Your task to perform on an android device: Search for "jbl flip 4" on bestbuy, select the first entry, and add it to the cart. Image 0: 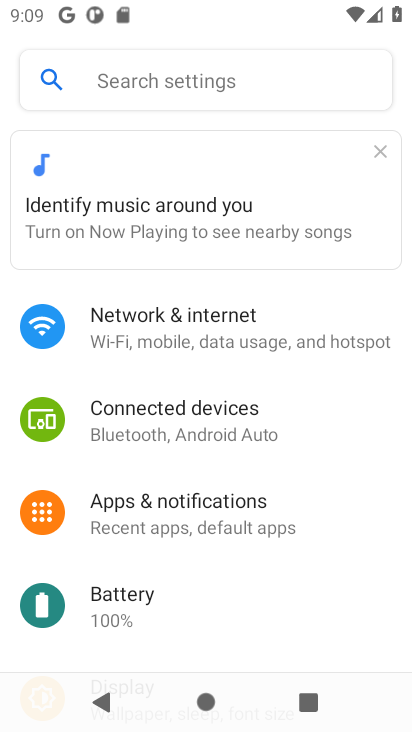
Step 0: press home button
Your task to perform on an android device: Search for "jbl flip 4" on bestbuy, select the first entry, and add it to the cart. Image 1: 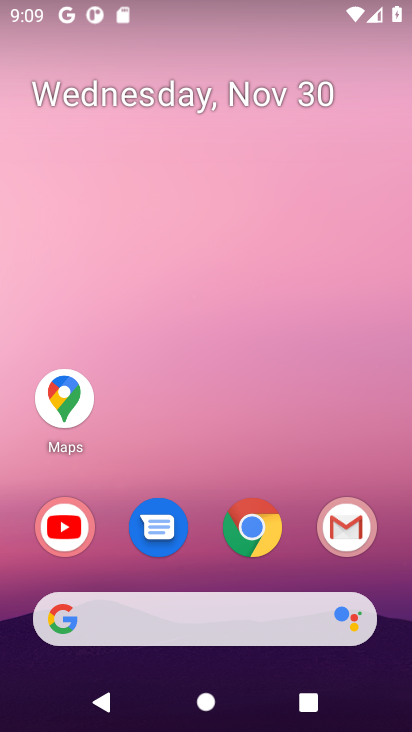
Step 1: click (248, 526)
Your task to perform on an android device: Search for "jbl flip 4" on bestbuy, select the first entry, and add it to the cart. Image 2: 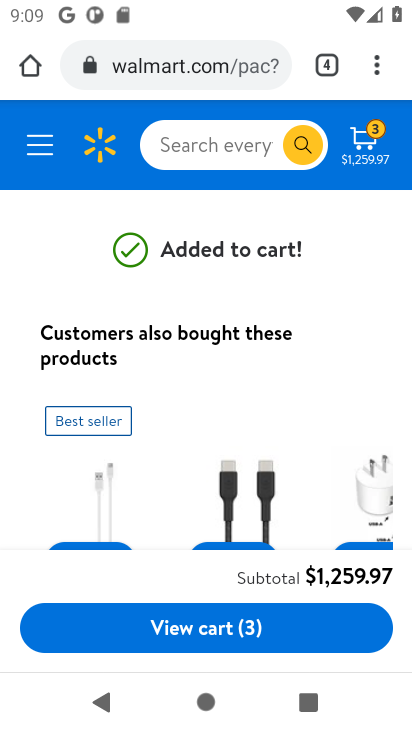
Step 2: click (215, 62)
Your task to perform on an android device: Search for "jbl flip 4" on bestbuy, select the first entry, and add it to the cart. Image 3: 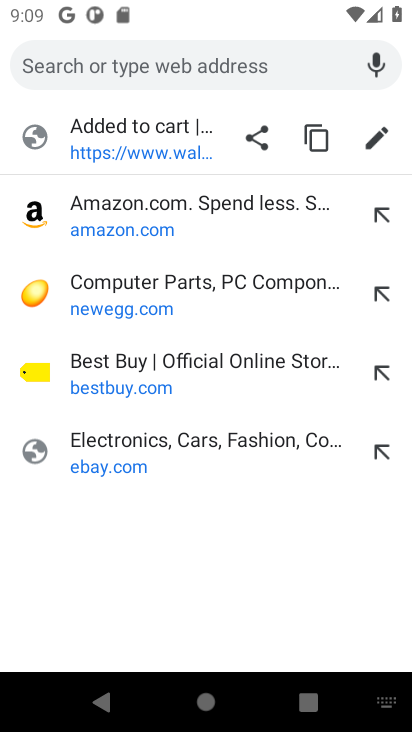
Step 3: click (119, 363)
Your task to perform on an android device: Search for "jbl flip 4" on bestbuy, select the first entry, and add it to the cart. Image 4: 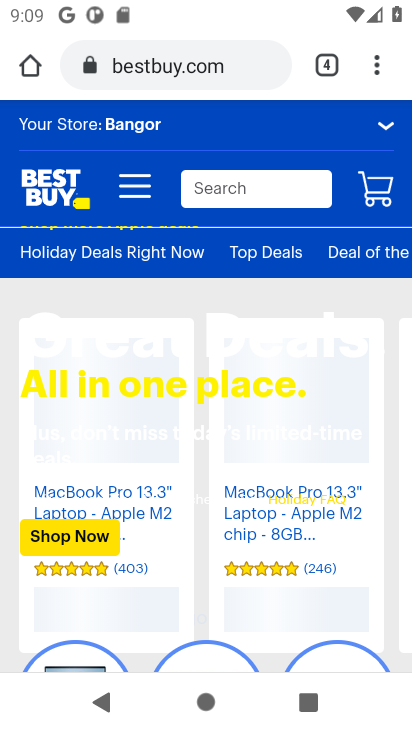
Step 4: click (253, 191)
Your task to perform on an android device: Search for "jbl flip 4" on bestbuy, select the first entry, and add it to the cart. Image 5: 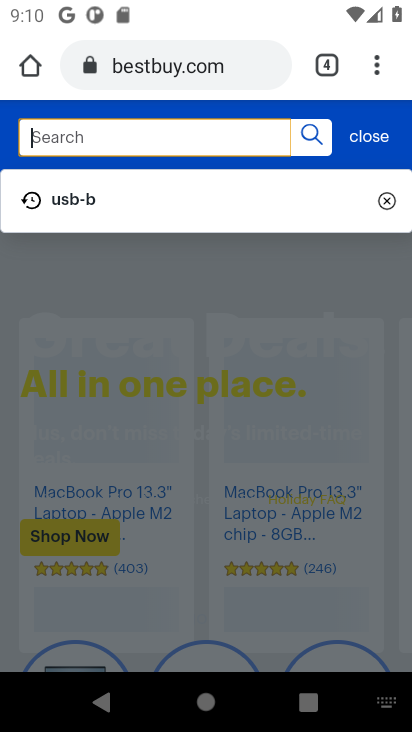
Step 5: type "jbl flip 4"
Your task to perform on an android device: Search for "jbl flip 4" on bestbuy, select the first entry, and add it to the cart. Image 6: 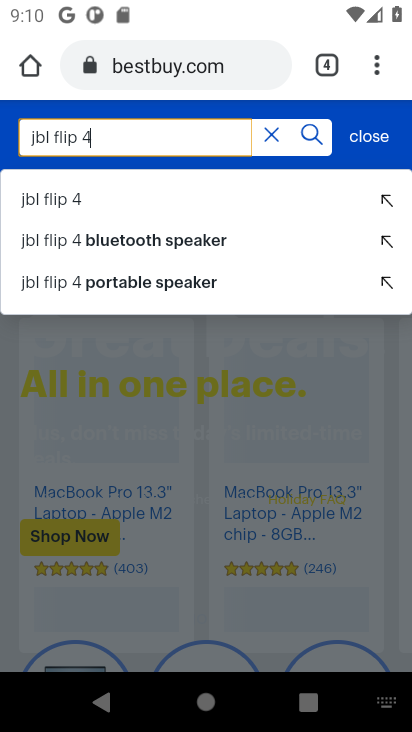
Step 6: click (64, 201)
Your task to perform on an android device: Search for "jbl flip 4" on bestbuy, select the first entry, and add it to the cart. Image 7: 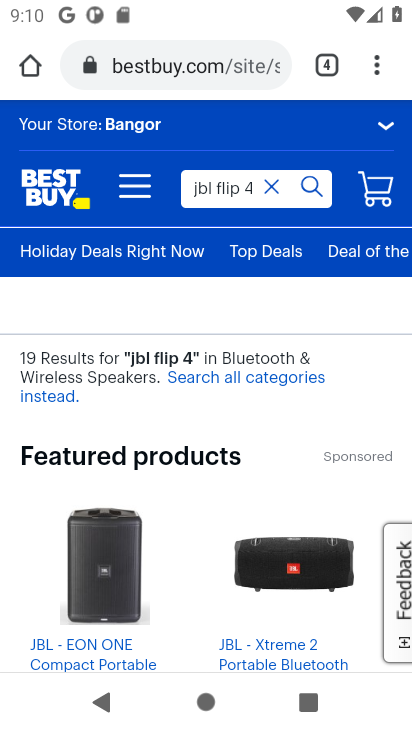
Step 7: drag from (267, 493) to (252, 100)
Your task to perform on an android device: Search for "jbl flip 4" on bestbuy, select the first entry, and add it to the cart. Image 8: 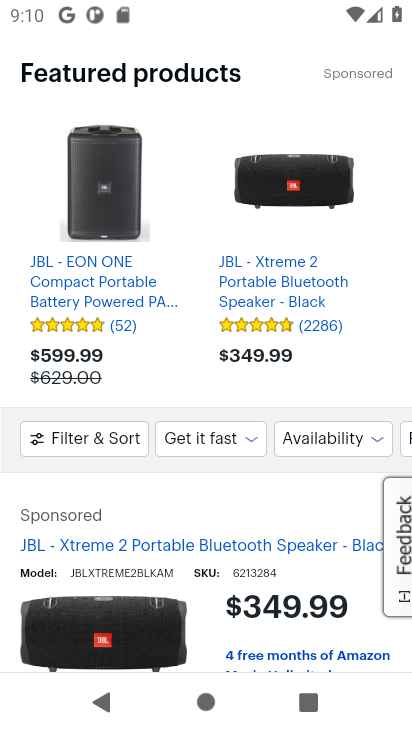
Step 8: drag from (259, 511) to (298, 206)
Your task to perform on an android device: Search for "jbl flip 4" on bestbuy, select the first entry, and add it to the cart. Image 9: 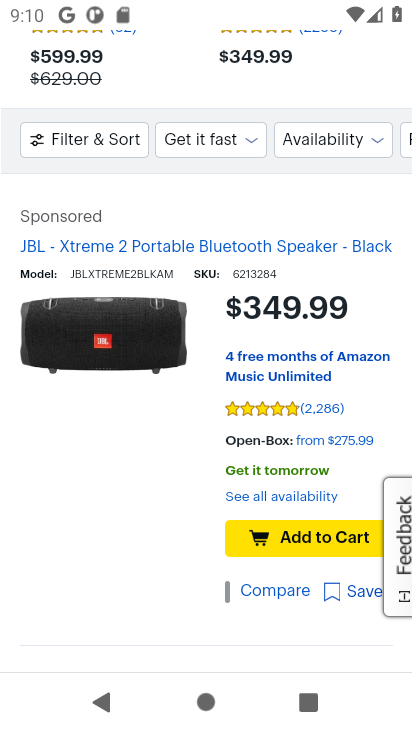
Step 9: drag from (278, 626) to (287, 107)
Your task to perform on an android device: Search for "jbl flip 4" on bestbuy, select the first entry, and add it to the cart. Image 10: 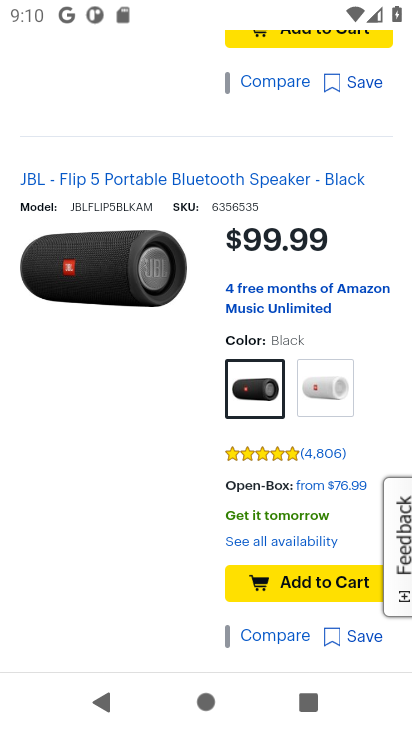
Step 10: drag from (162, 556) to (194, 87)
Your task to perform on an android device: Search for "jbl flip 4" on bestbuy, select the first entry, and add it to the cart. Image 11: 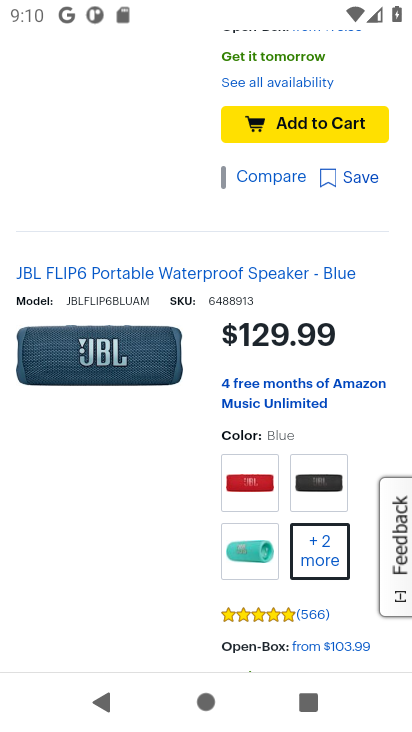
Step 11: drag from (150, 585) to (253, 70)
Your task to perform on an android device: Search for "jbl flip 4" on bestbuy, select the first entry, and add it to the cart. Image 12: 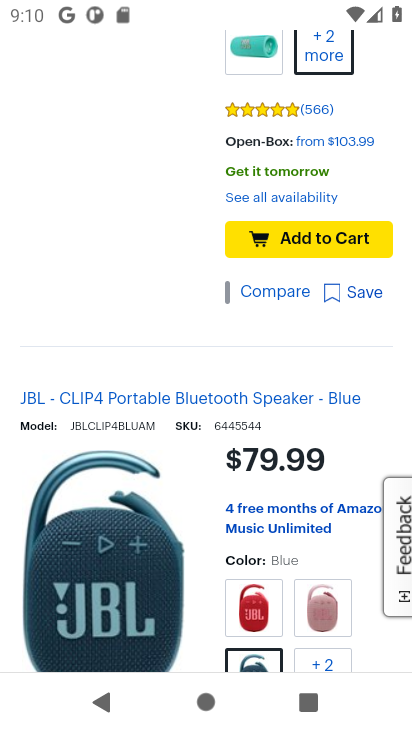
Step 12: click (124, 555)
Your task to perform on an android device: Search for "jbl flip 4" on bestbuy, select the first entry, and add it to the cart. Image 13: 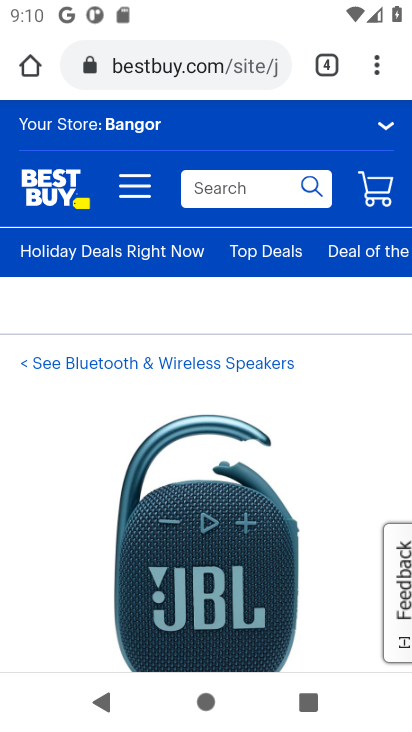
Step 13: drag from (329, 487) to (277, 8)
Your task to perform on an android device: Search for "jbl flip 4" on bestbuy, select the first entry, and add it to the cart. Image 14: 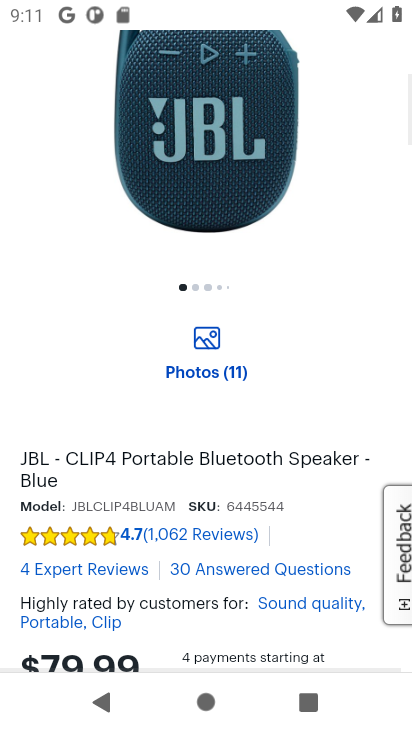
Step 14: drag from (339, 612) to (378, 3)
Your task to perform on an android device: Search for "jbl flip 4" on bestbuy, select the first entry, and add it to the cart. Image 15: 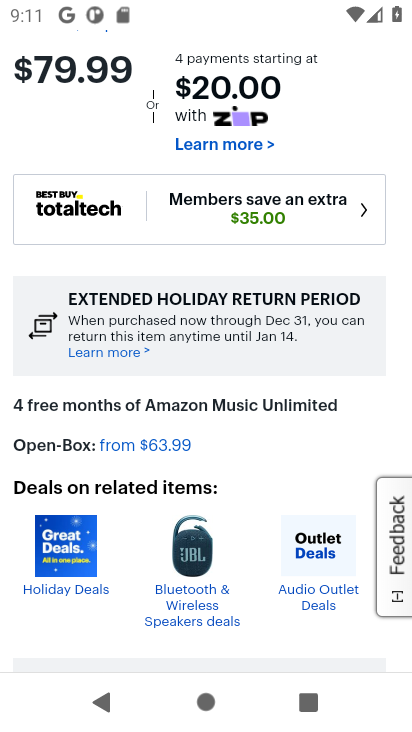
Step 15: drag from (288, 499) to (306, 78)
Your task to perform on an android device: Search for "jbl flip 4" on bestbuy, select the first entry, and add it to the cart. Image 16: 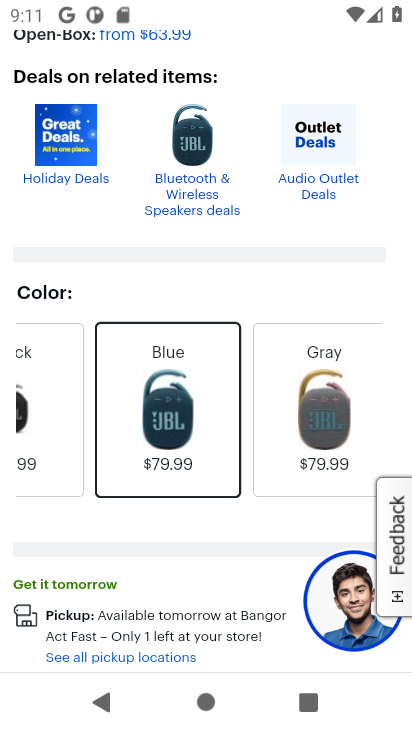
Step 16: drag from (224, 579) to (291, 123)
Your task to perform on an android device: Search for "jbl flip 4" on bestbuy, select the first entry, and add it to the cart. Image 17: 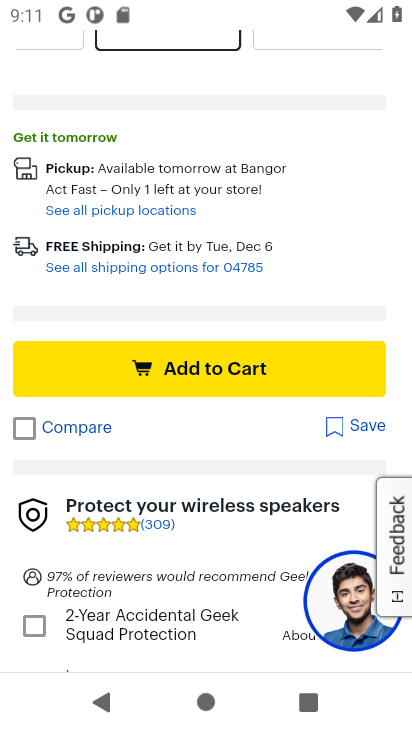
Step 17: click (233, 364)
Your task to perform on an android device: Search for "jbl flip 4" on bestbuy, select the first entry, and add it to the cart. Image 18: 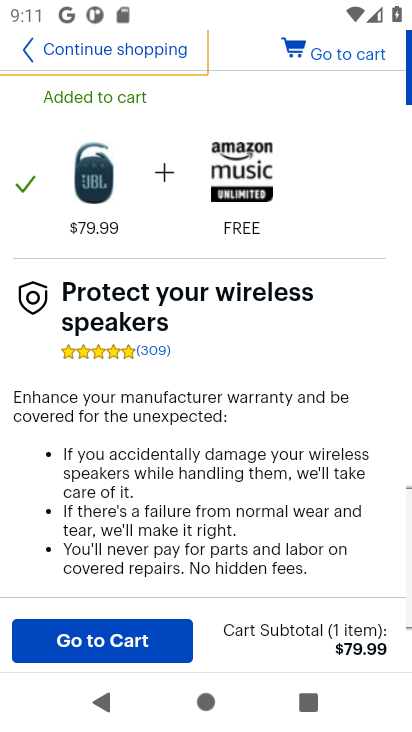
Step 18: click (126, 635)
Your task to perform on an android device: Search for "jbl flip 4" on bestbuy, select the first entry, and add it to the cart. Image 19: 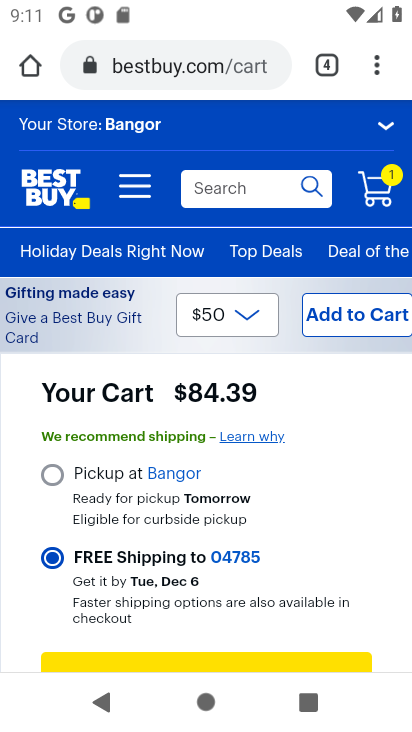
Step 19: task complete